Your task to perform on an android device: toggle priority inbox in the gmail app Image 0: 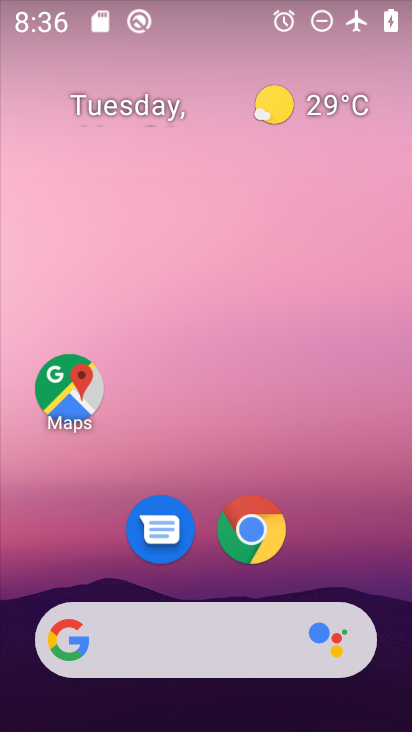
Step 0: drag from (392, 656) to (260, 60)
Your task to perform on an android device: toggle priority inbox in the gmail app Image 1: 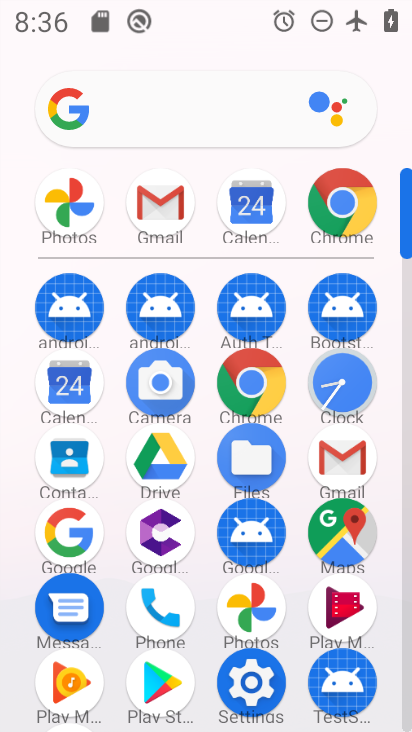
Step 1: click (338, 470)
Your task to perform on an android device: toggle priority inbox in the gmail app Image 2: 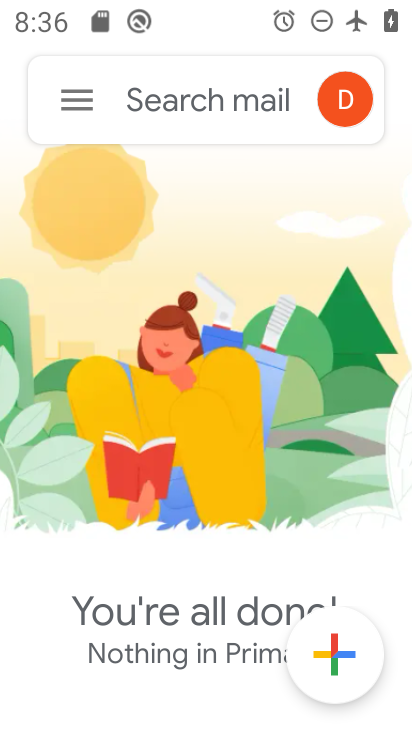
Step 2: click (56, 97)
Your task to perform on an android device: toggle priority inbox in the gmail app Image 3: 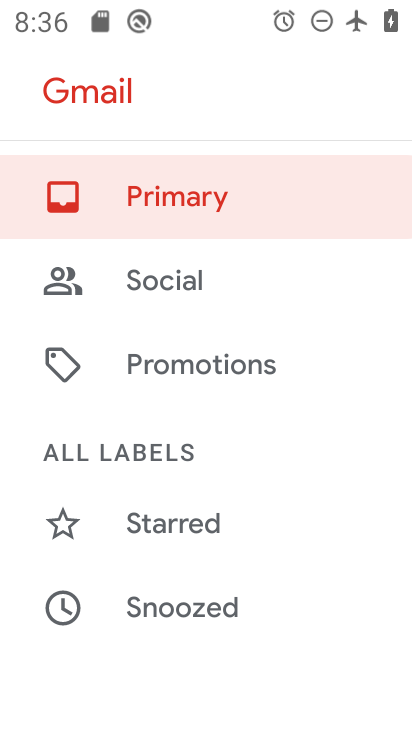
Step 3: drag from (153, 627) to (233, 132)
Your task to perform on an android device: toggle priority inbox in the gmail app Image 4: 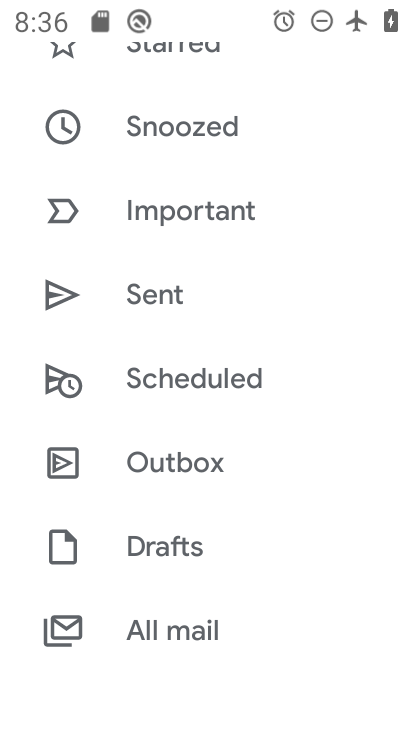
Step 4: drag from (168, 581) to (205, 132)
Your task to perform on an android device: toggle priority inbox in the gmail app Image 5: 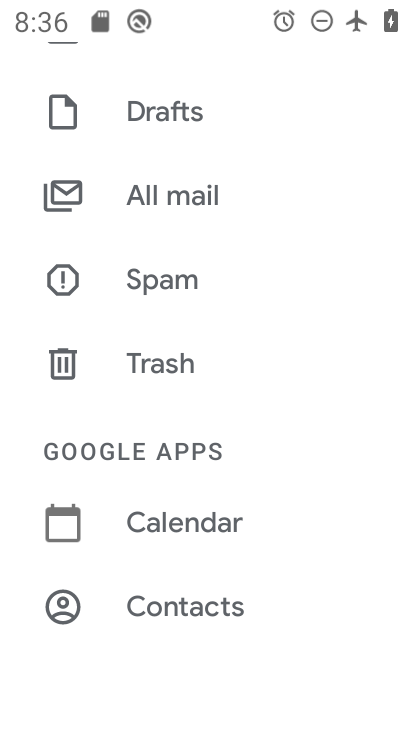
Step 5: drag from (221, 592) to (221, 190)
Your task to perform on an android device: toggle priority inbox in the gmail app Image 6: 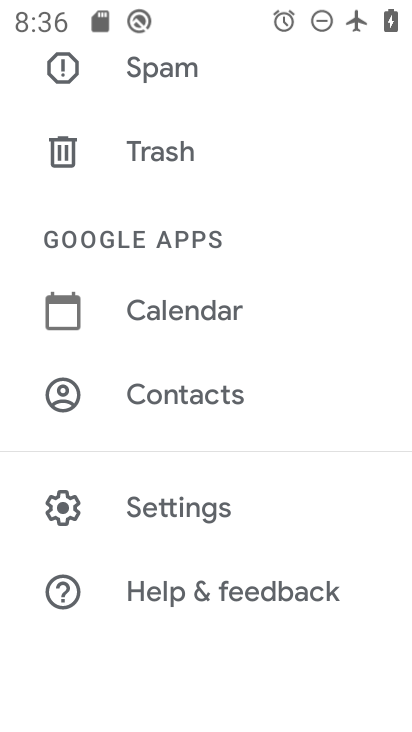
Step 6: click (209, 504)
Your task to perform on an android device: toggle priority inbox in the gmail app Image 7: 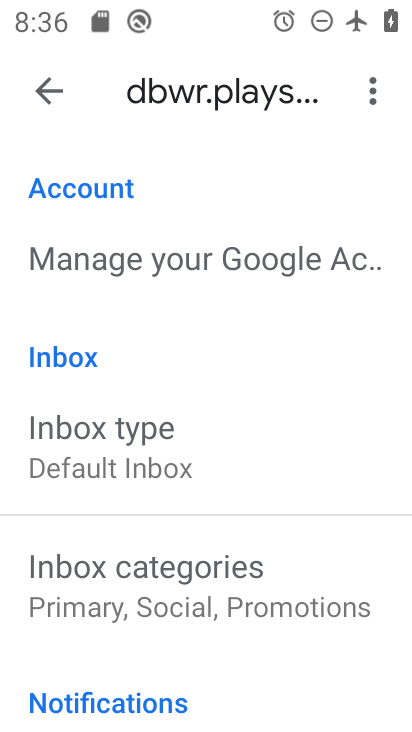
Step 7: click (207, 495)
Your task to perform on an android device: toggle priority inbox in the gmail app Image 8: 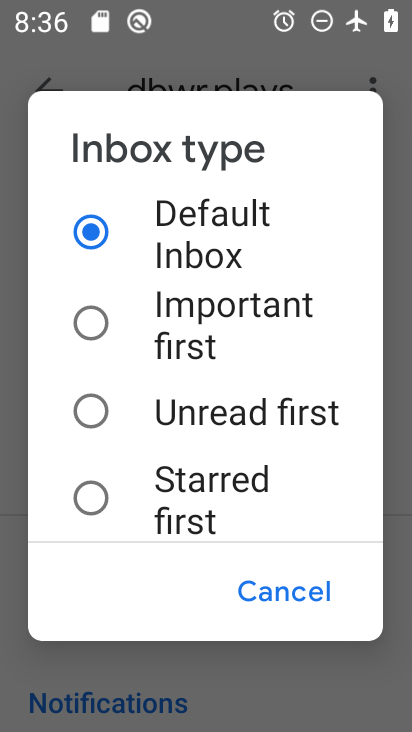
Step 8: task complete